Your task to perform on an android device: Open eBay Image 0: 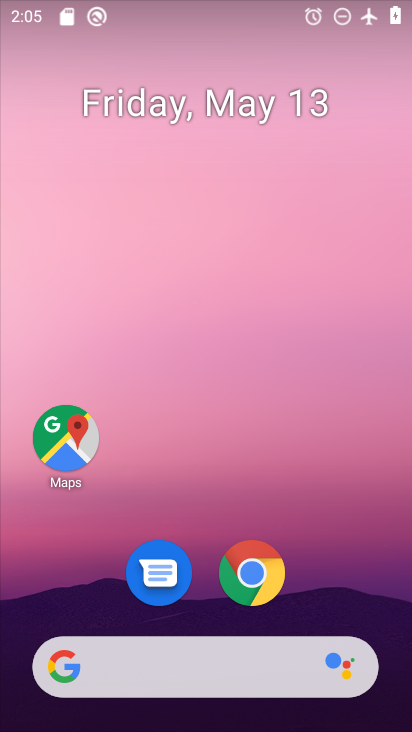
Step 0: click (248, 667)
Your task to perform on an android device: Open eBay Image 1: 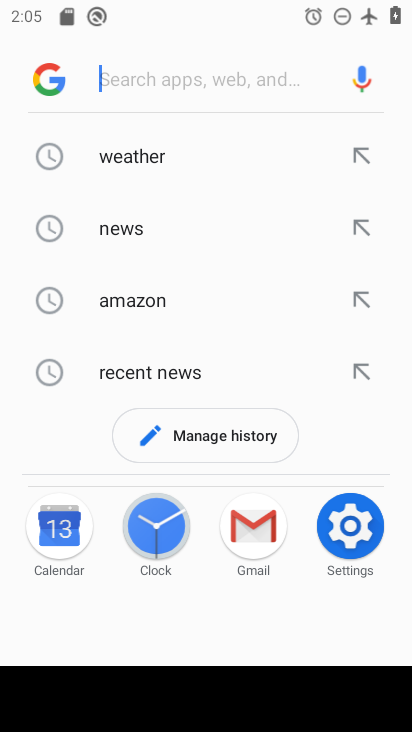
Step 1: type "ebay"
Your task to perform on an android device: Open eBay Image 2: 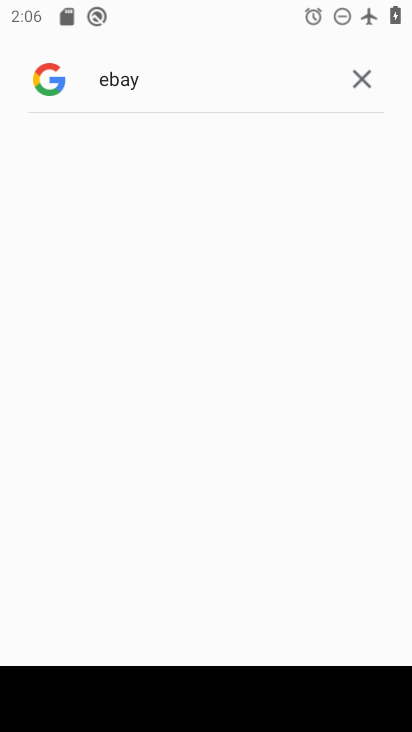
Step 2: task complete